Your task to perform on an android device: install app "Adobe Express: Graphic Design" Image 0: 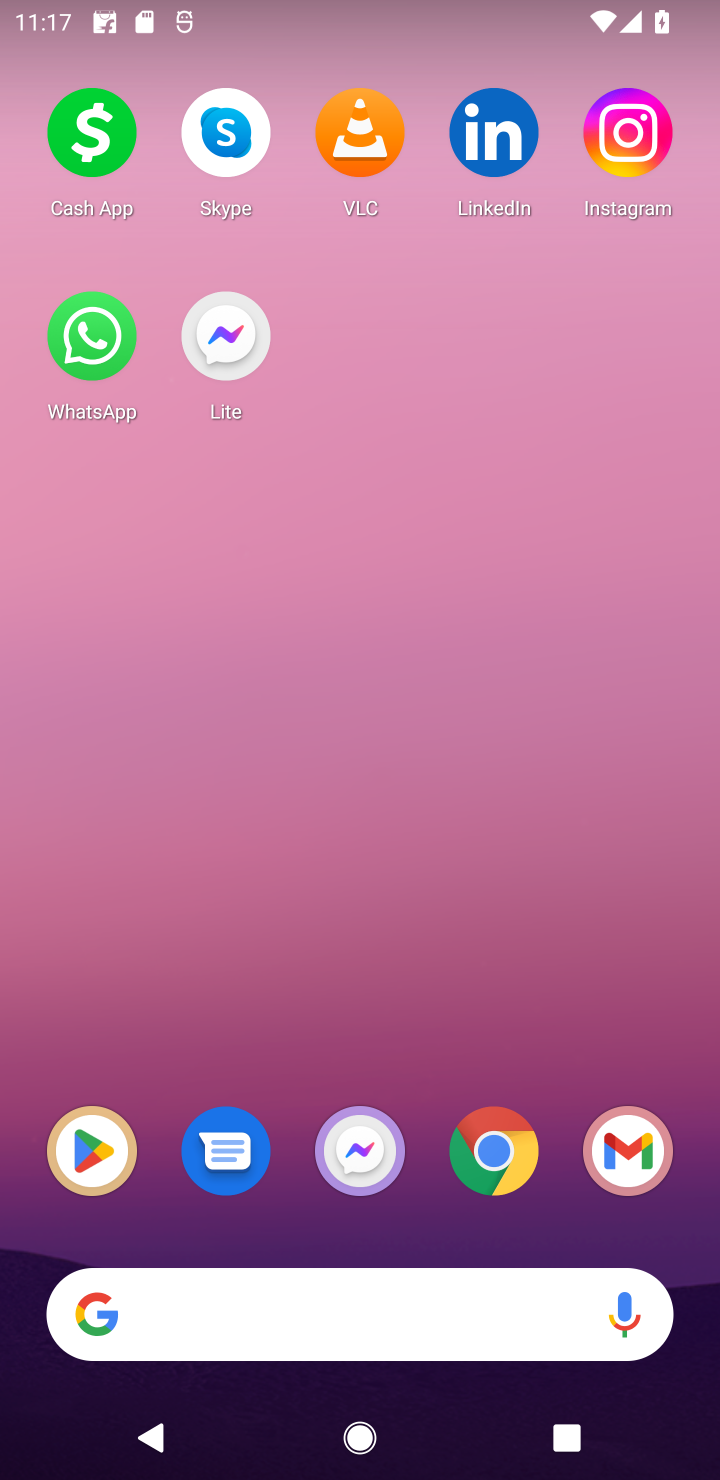
Step 0: click (86, 1152)
Your task to perform on an android device: install app "Adobe Express: Graphic Design" Image 1: 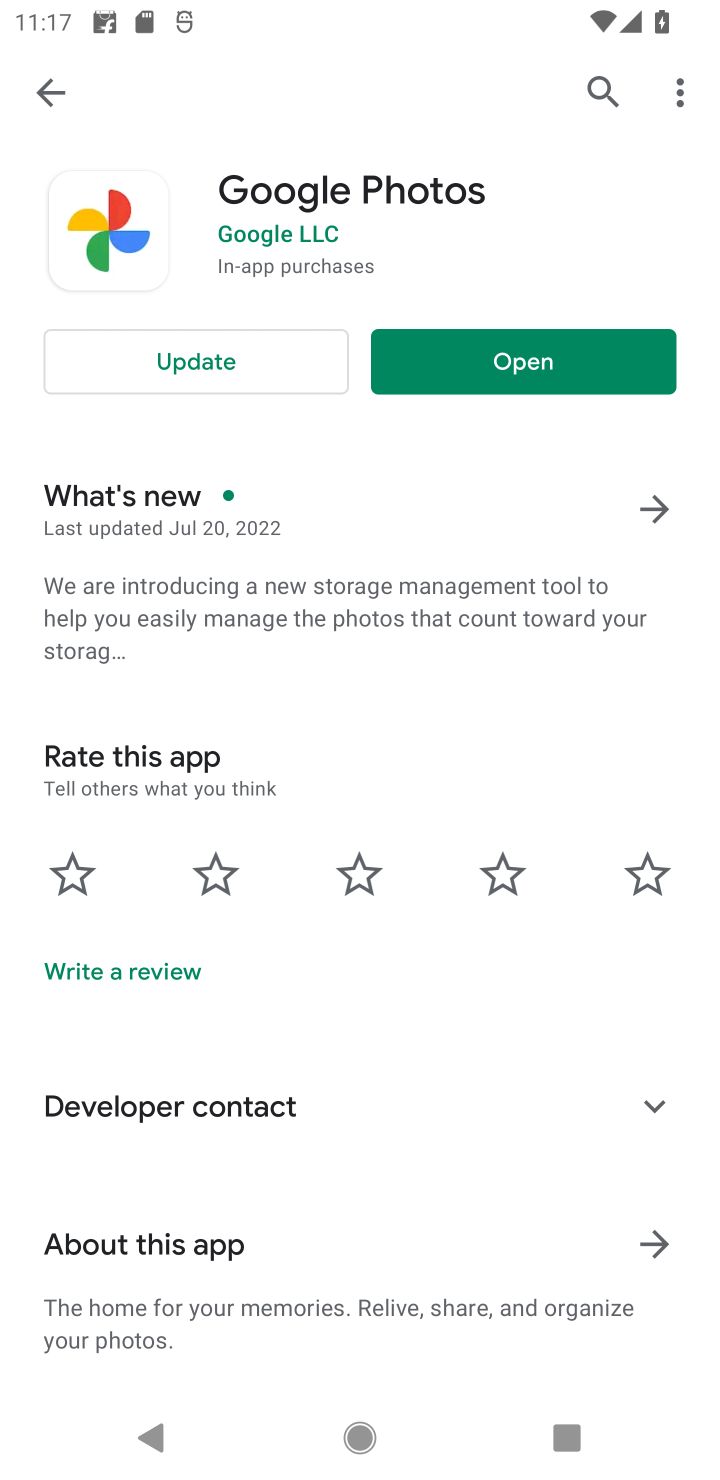
Step 1: click (584, 88)
Your task to perform on an android device: install app "Adobe Express: Graphic Design" Image 2: 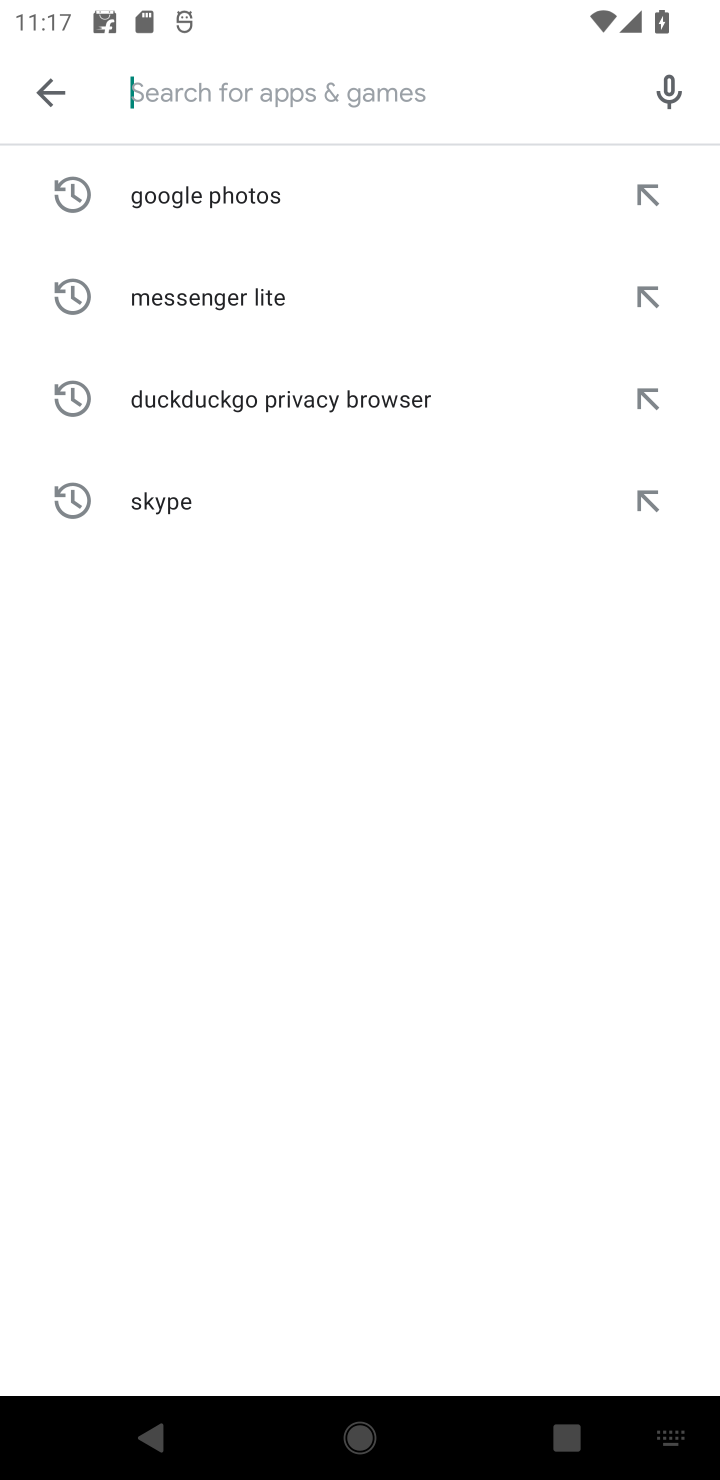
Step 2: type "Adobe Express: Graphic Design"
Your task to perform on an android device: install app "Adobe Express: Graphic Design" Image 3: 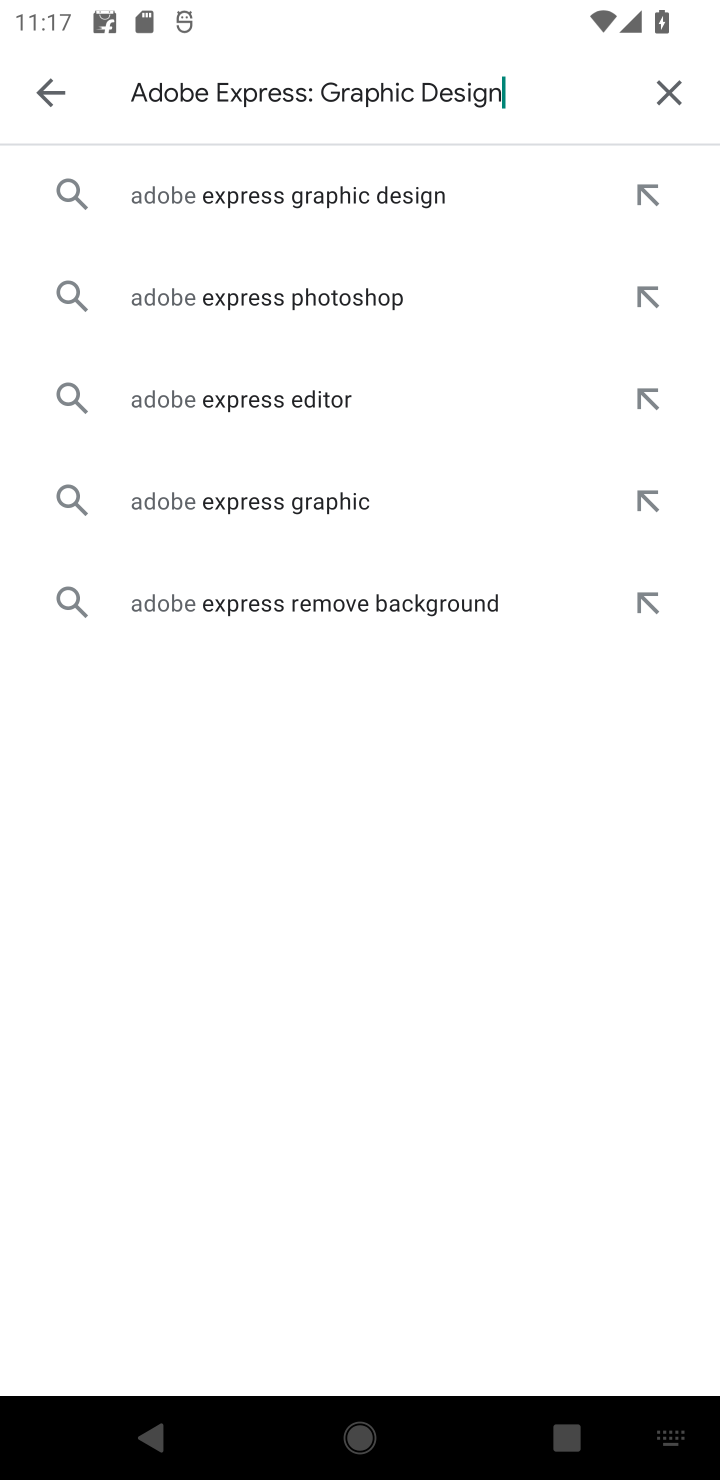
Step 3: type ""
Your task to perform on an android device: install app "Adobe Express: Graphic Design" Image 4: 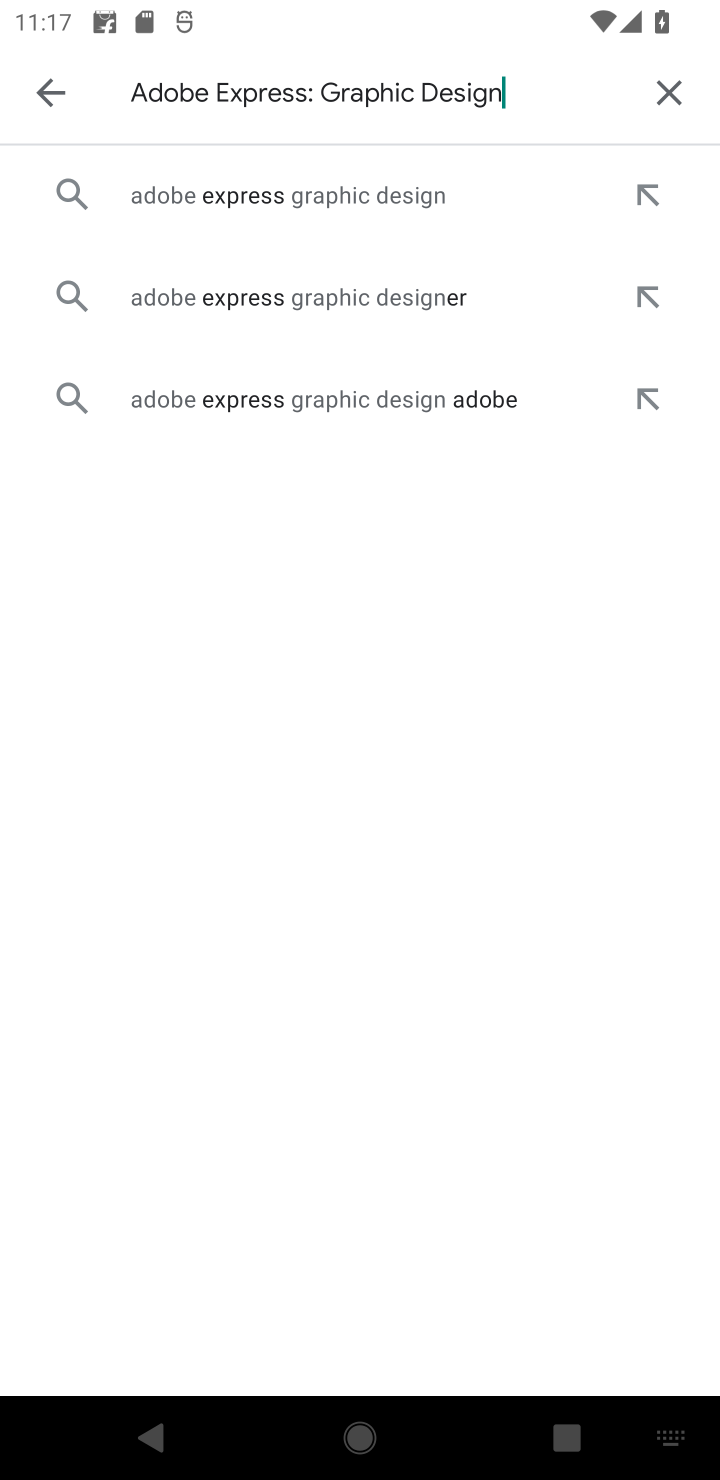
Step 4: click (420, 196)
Your task to perform on an android device: install app "Adobe Express: Graphic Design" Image 5: 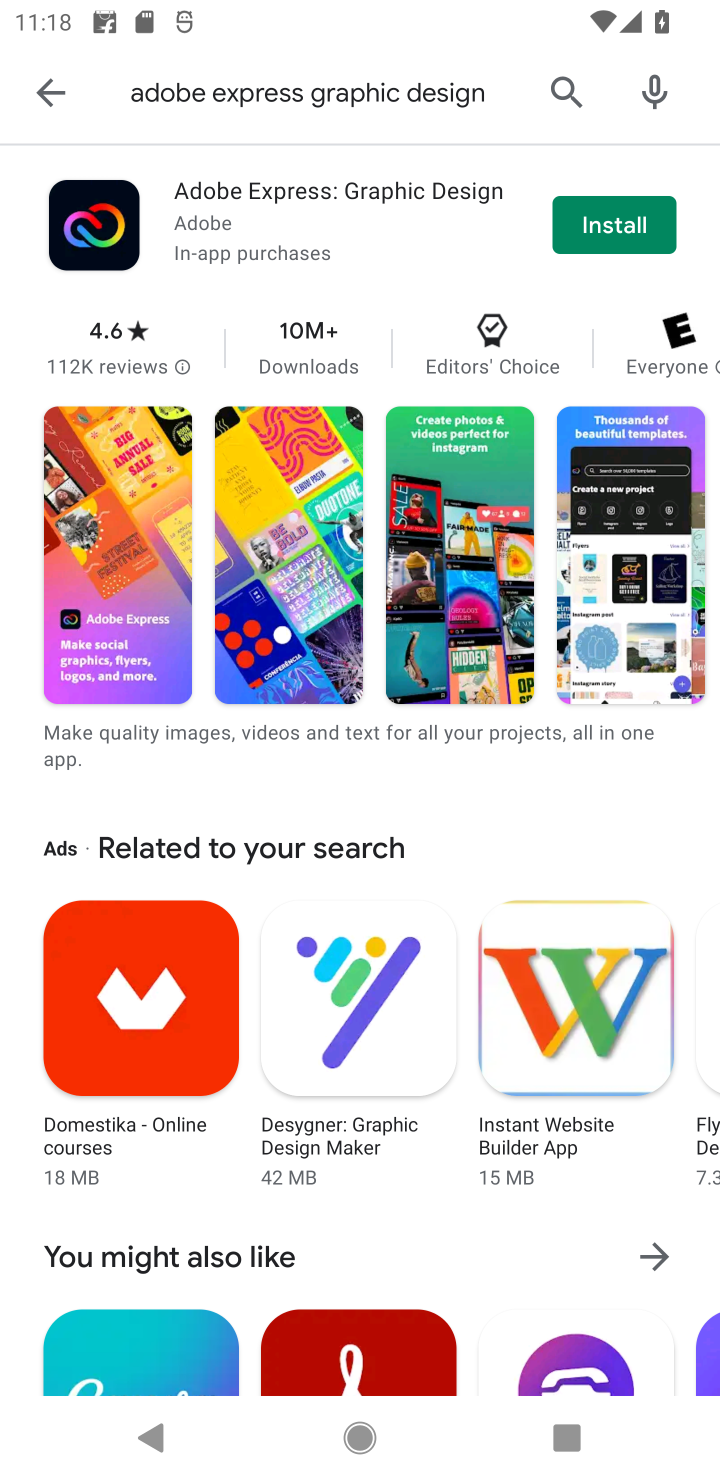
Step 5: click (621, 223)
Your task to perform on an android device: install app "Adobe Express: Graphic Design" Image 6: 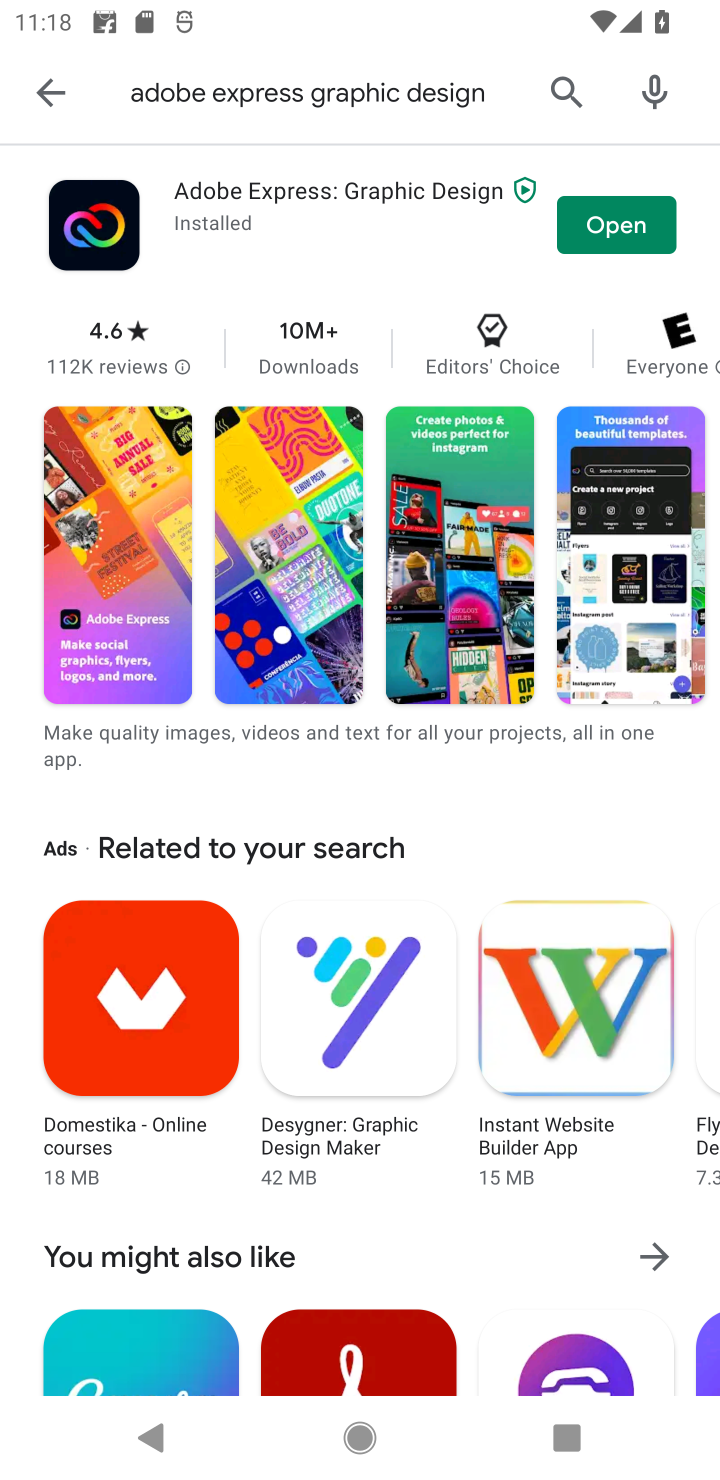
Step 6: task complete